Your task to perform on an android device: Open Google Chrome Image 0: 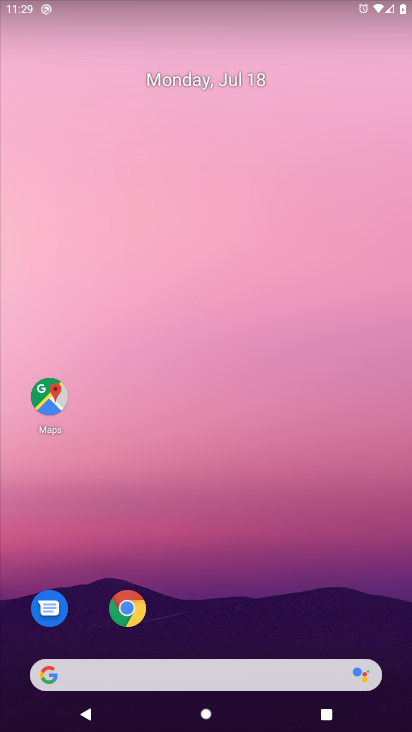
Step 0: click (119, 617)
Your task to perform on an android device: Open Google Chrome Image 1: 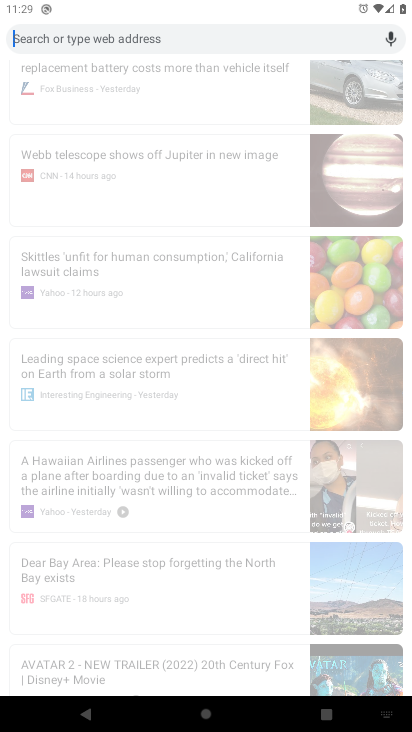
Step 1: task complete